Your task to perform on an android device: find snoozed emails in the gmail app Image 0: 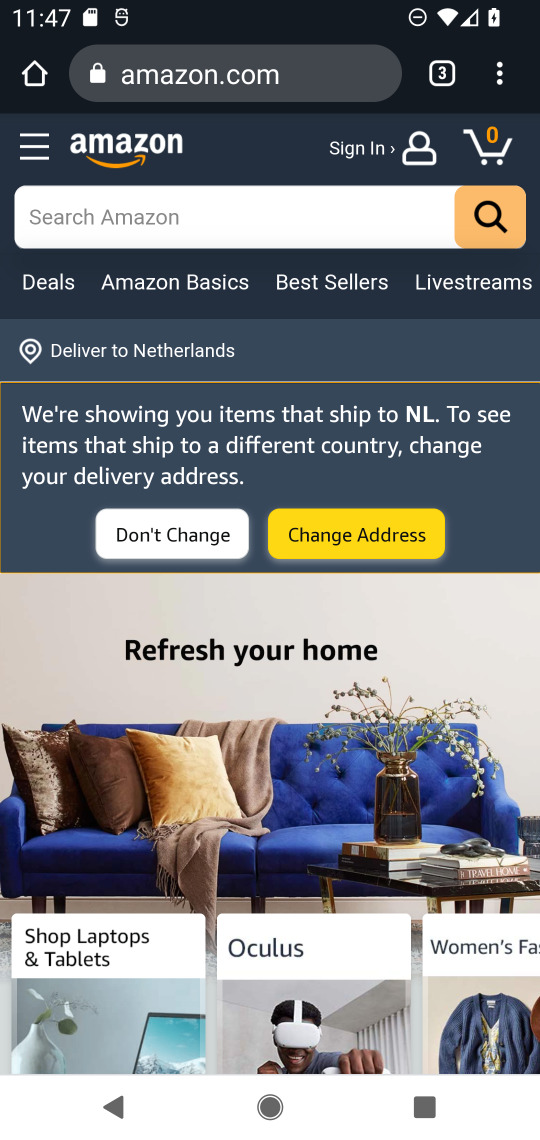
Step 0: press home button
Your task to perform on an android device: find snoozed emails in the gmail app Image 1: 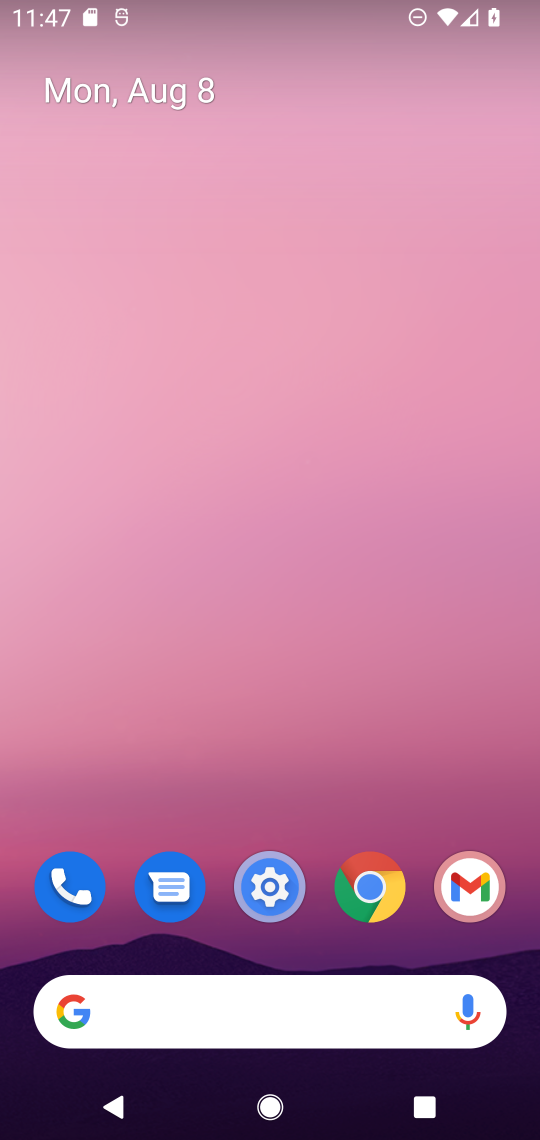
Step 1: click (459, 884)
Your task to perform on an android device: find snoozed emails in the gmail app Image 2: 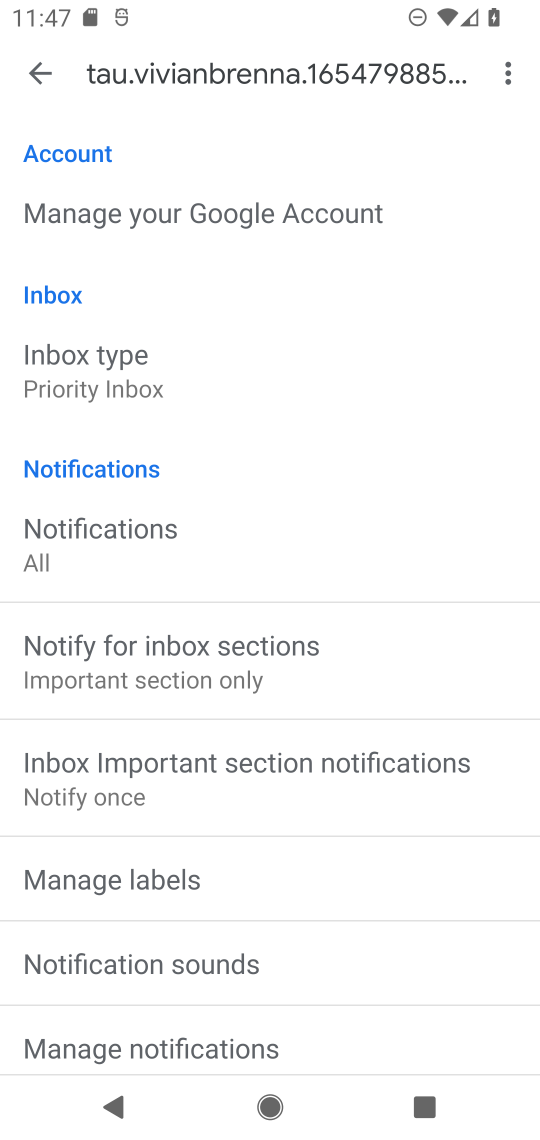
Step 2: click (39, 61)
Your task to perform on an android device: find snoozed emails in the gmail app Image 3: 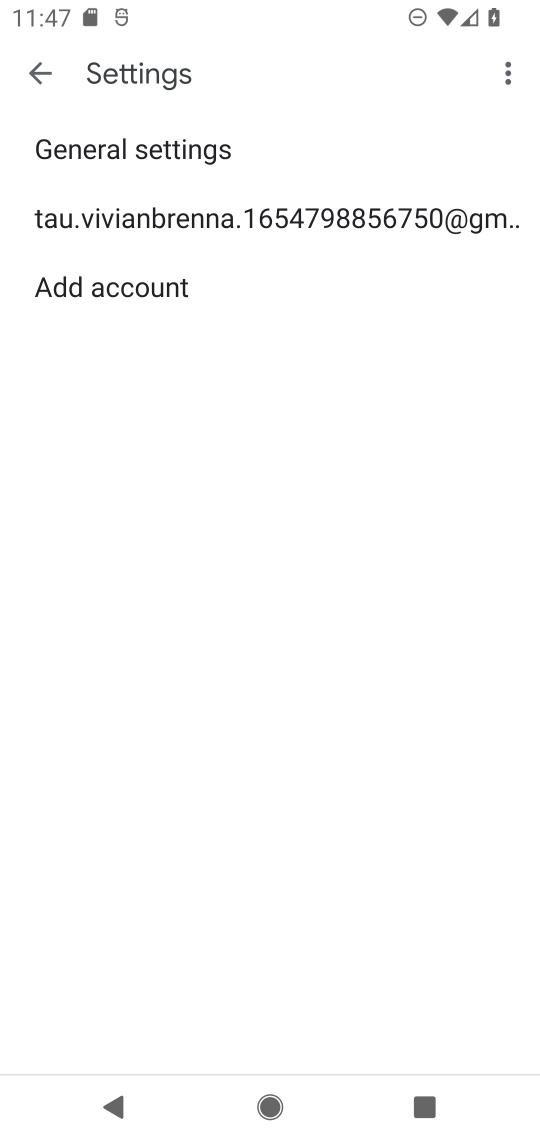
Step 3: click (38, 74)
Your task to perform on an android device: find snoozed emails in the gmail app Image 4: 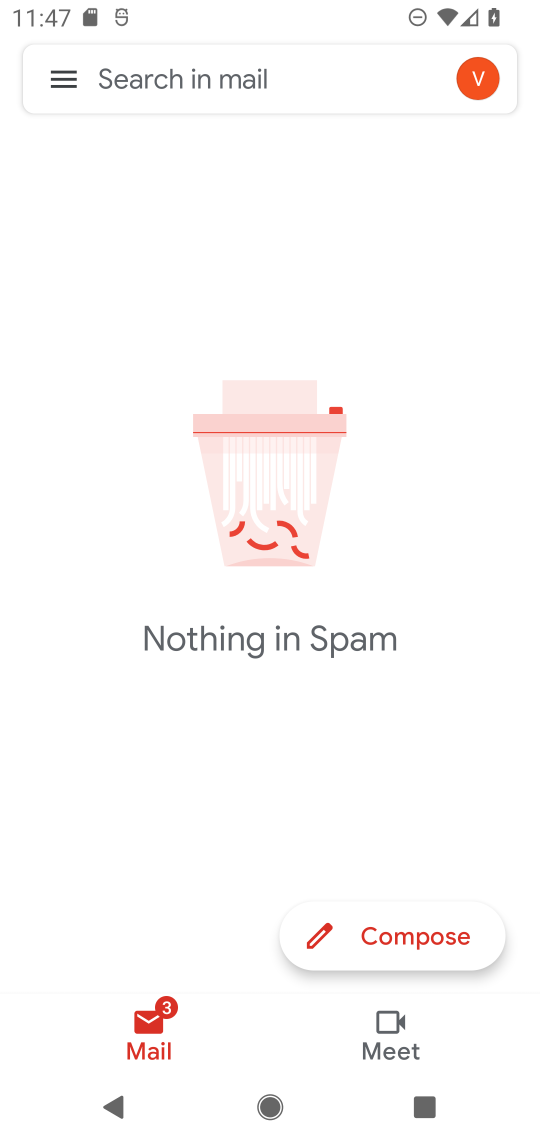
Step 4: click (71, 82)
Your task to perform on an android device: find snoozed emails in the gmail app Image 5: 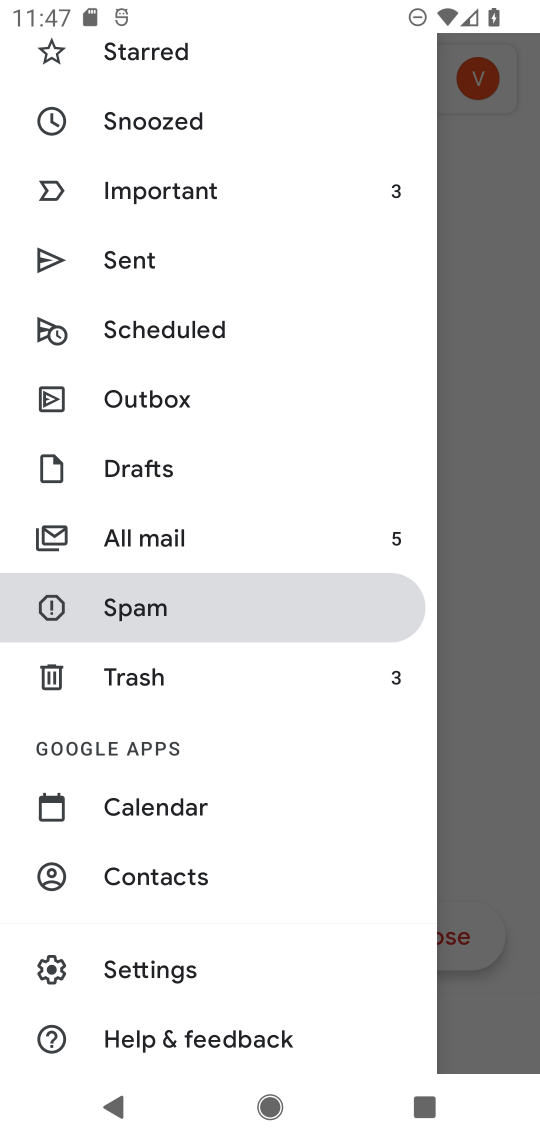
Step 5: click (160, 115)
Your task to perform on an android device: find snoozed emails in the gmail app Image 6: 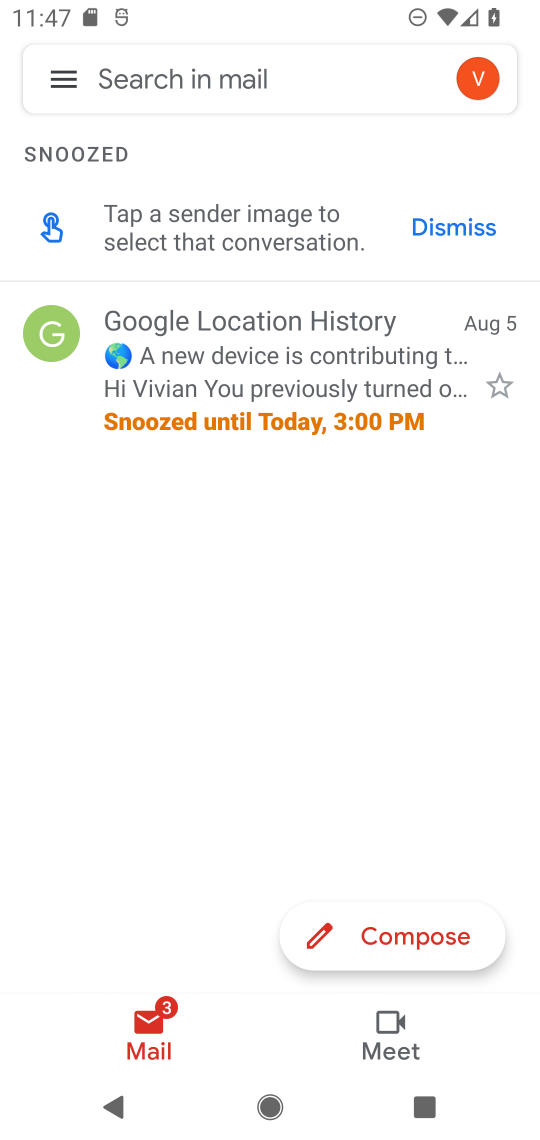
Step 6: task complete